Your task to perform on an android device: create a new album in the google photos Image 0: 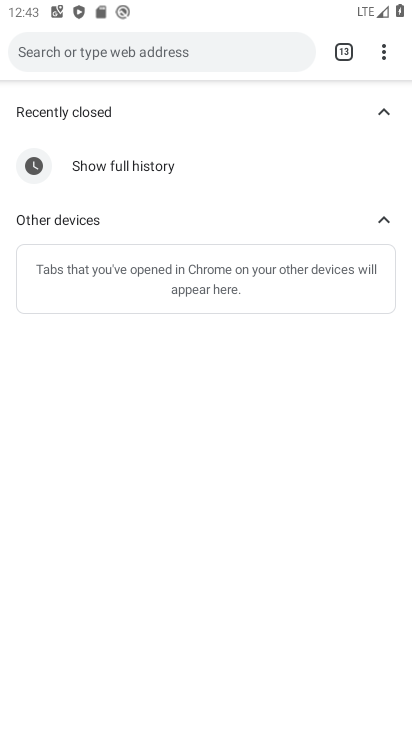
Step 0: press home button
Your task to perform on an android device: create a new album in the google photos Image 1: 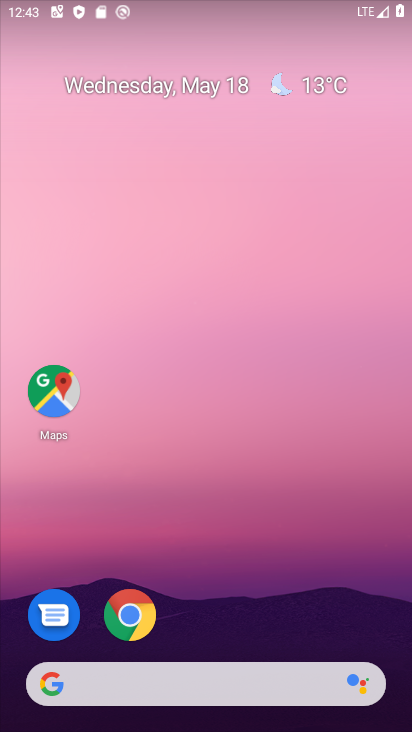
Step 1: drag from (207, 676) to (317, 267)
Your task to perform on an android device: create a new album in the google photos Image 2: 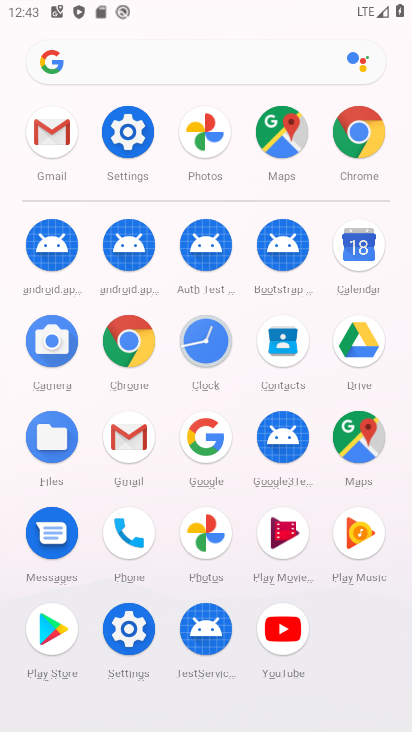
Step 2: click (207, 142)
Your task to perform on an android device: create a new album in the google photos Image 3: 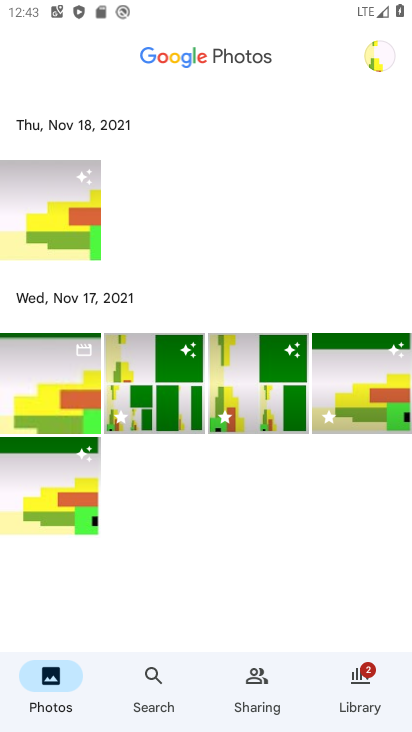
Step 3: click (358, 687)
Your task to perform on an android device: create a new album in the google photos Image 4: 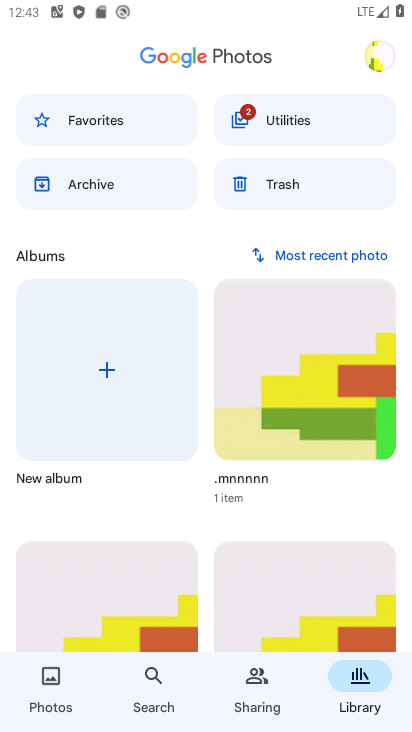
Step 4: click (133, 365)
Your task to perform on an android device: create a new album in the google photos Image 5: 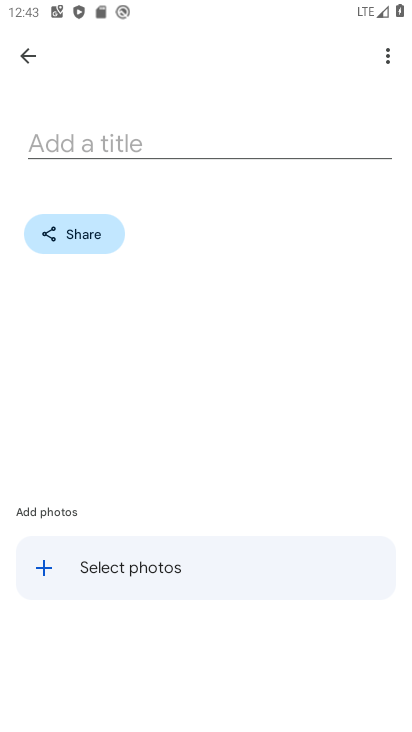
Step 5: click (149, 560)
Your task to perform on an android device: create a new album in the google photos Image 6: 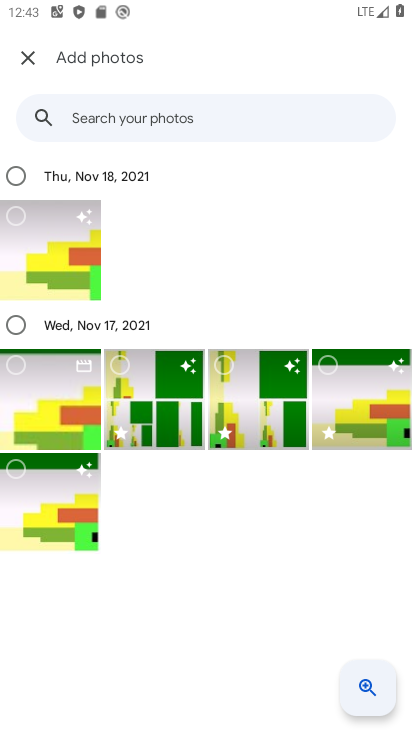
Step 6: click (25, 218)
Your task to perform on an android device: create a new album in the google photos Image 7: 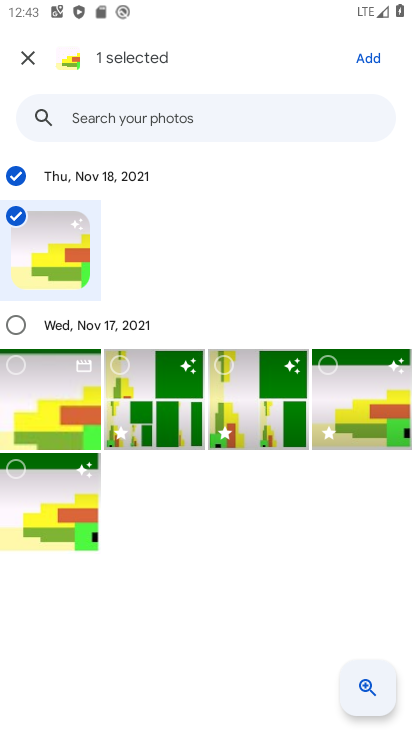
Step 7: click (31, 396)
Your task to perform on an android device: create a new album in the google photos Image 8: 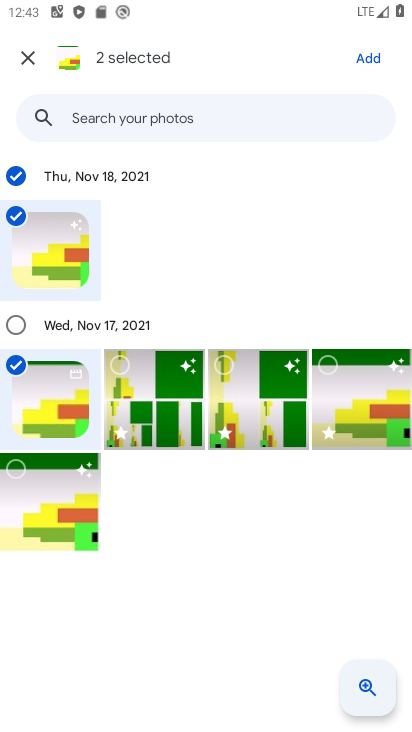
Step 8: click (369, 68)
Your task to perform on an android device: create a new album in the google photos Image 9: 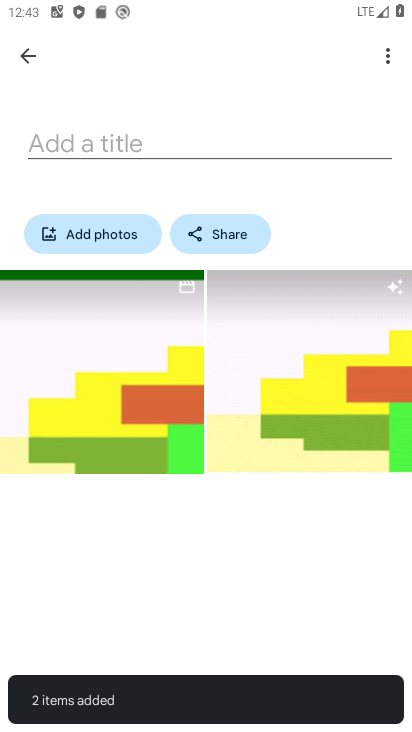
Step 9: task complete